Your task to perform on an android device: check the backup settings in the google photos Image 0: 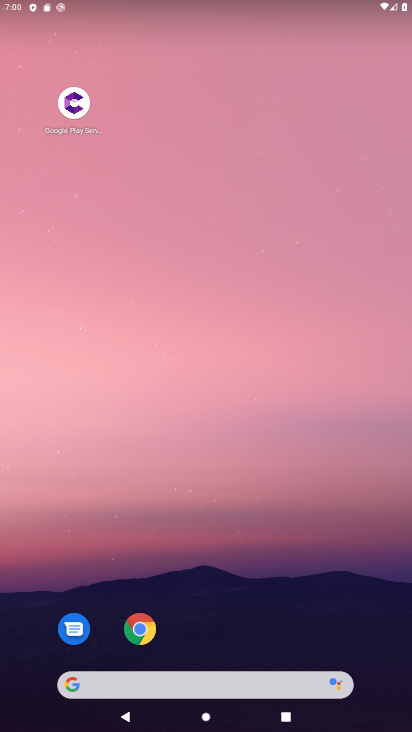
Step 0: drag from (336, 614) to (187, 37)
Your task to perform on an android device: check the backup settings in the google photos Image 1: 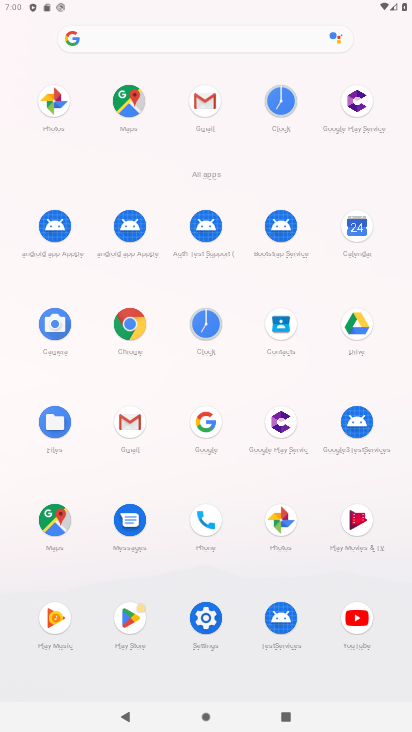
Step 1: click (282, 523)
Your task to perform on an android device: check the backup settings in the google photos Image 2: 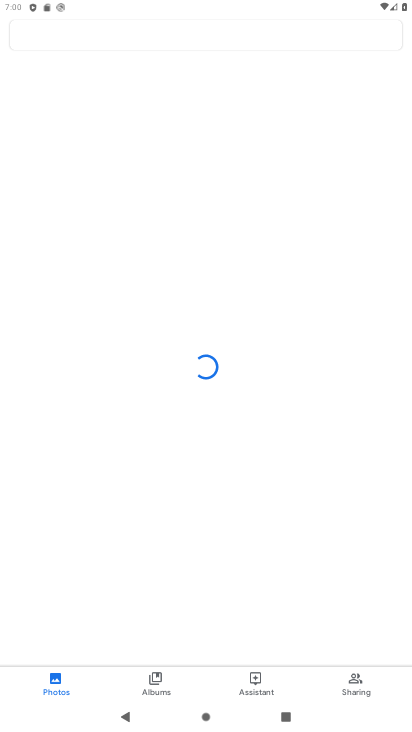
Step 2: click (122, 504)
Your task to perform on an android device: check the backup settings in the google photos Image 3: 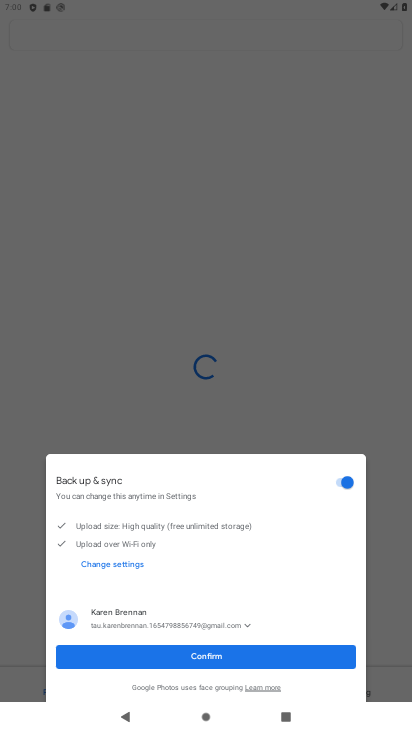
Step 3: click (176, 658)
Your task to perform on an android device: check the backup settings in the google photos Image 4: 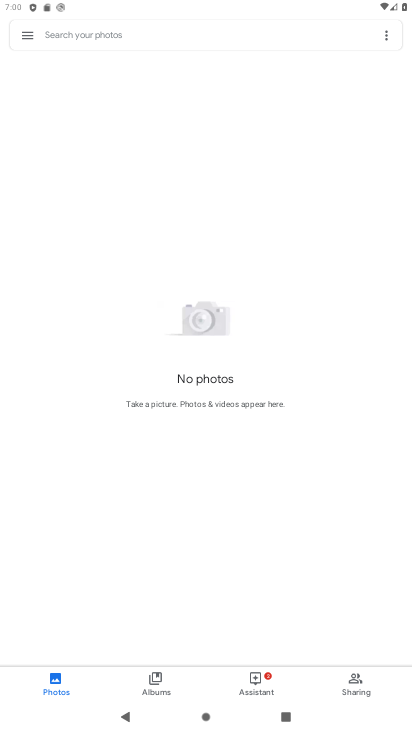
Step 4: click (17, 33)
Your task to perform on an android device: check the backup settings in the google photos Image 5: 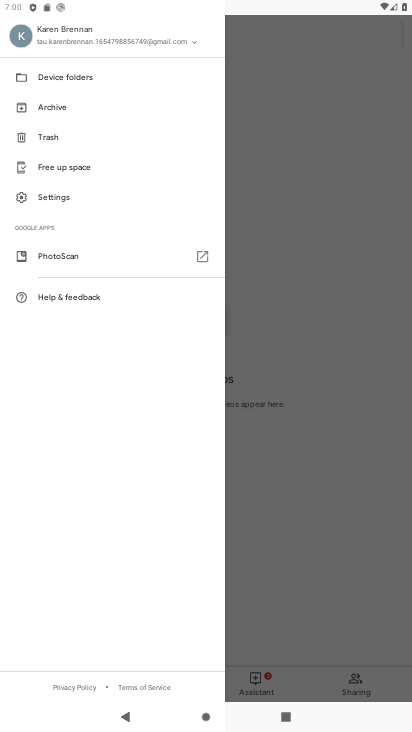
Step 5: click (61, 202)
Your task to perform on an android device: check the backup settings in the google photos Image 6: 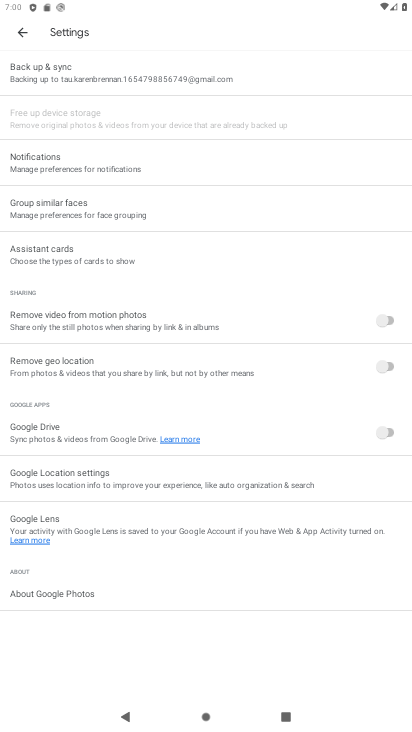
Step 6: click (80, 68)
Your task to perform on an android device: check the backup settings in the google photos Image 7: 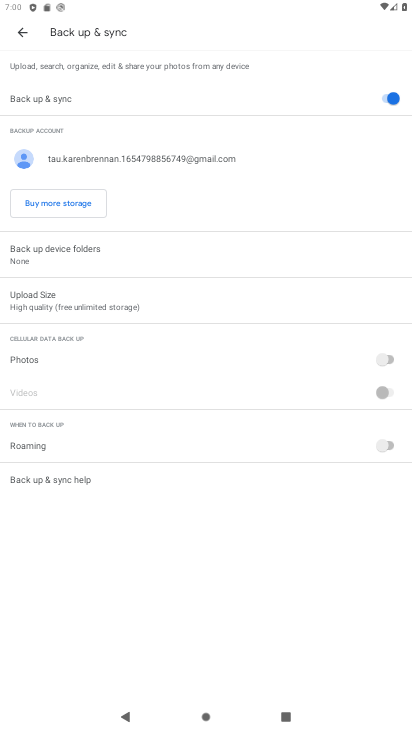
Step 7: task complete